Your task to perform on an android device: Open the downloads Image 0: 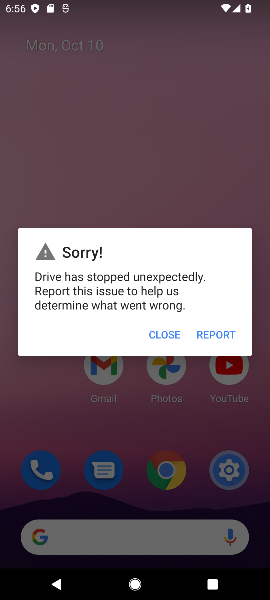
Step 0: click (154, 331)
Your task to perform on an android device: Open the downloads Image 1: 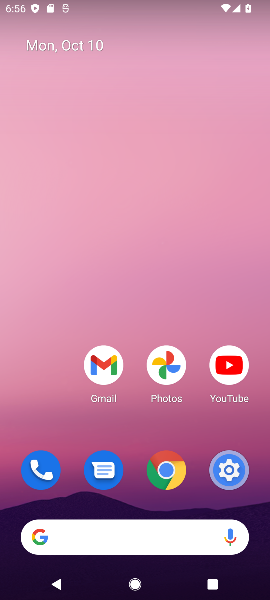
Step 1: click (156, 334)
Your task to perform on an android device: Open the downloads Image 2: 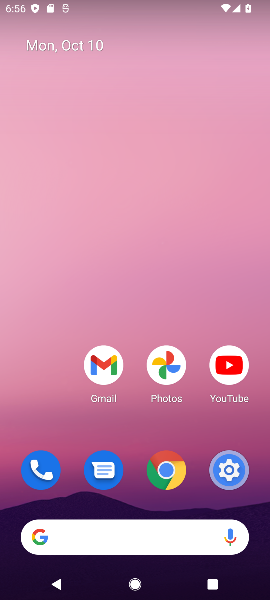
Step 2: click (167, 469)
Your task to perform on an android device: Open the downloads Image 3: 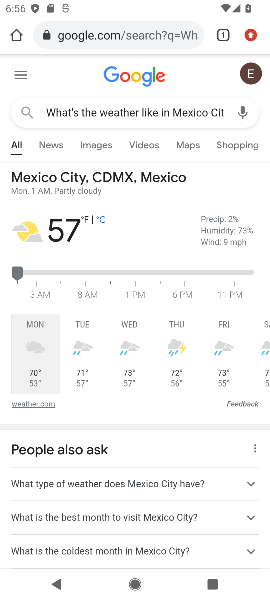
Step 3: click (247, 31)
Your task to perform on an android device: Open the downloads Image 4: 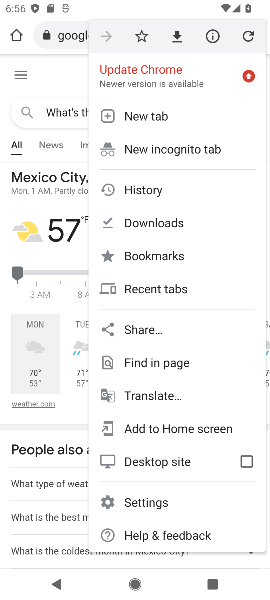
Step 4: click (129, 227)
Your task to perform on an android device: Open the downloads Image 5: 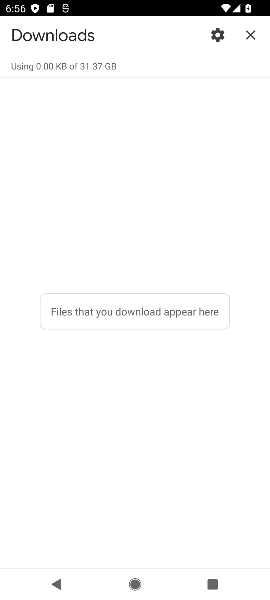
Step 5: task complete